Your task to perform on an android device: What's the weather going to be tomorrow? Image 0: 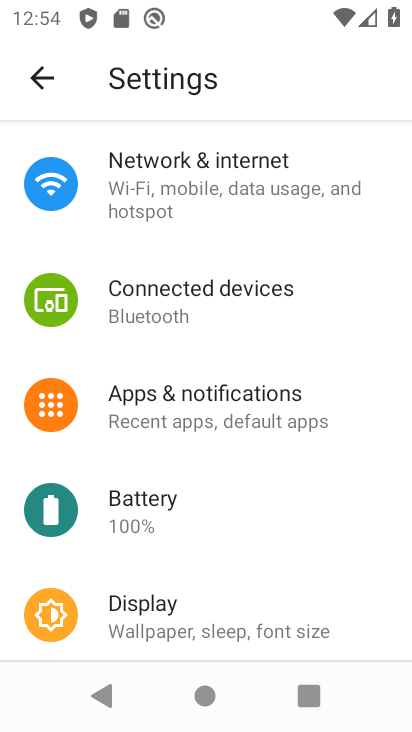
Step 0: press back button
Your task to perform on an android device: What's the weather going to be tomorrow? Image 1: 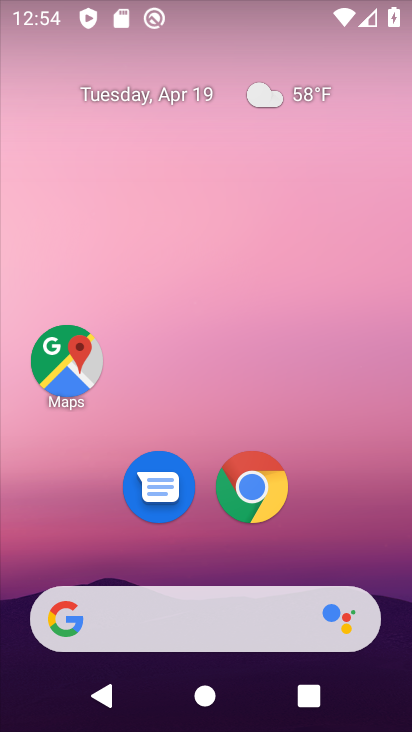
Step 1: click (273, 92)
Your task to perform on an android device: What's the weather going to be tomorrow? Image 2: 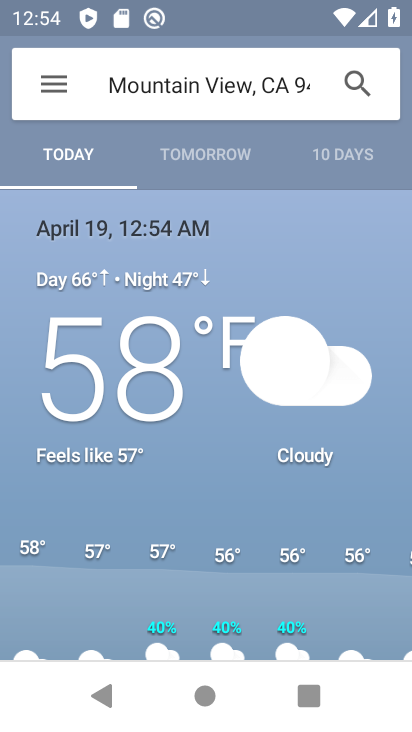
Step 2: click (214, 148)
Your task to perform on an android device: What's the weather going to be tomorrow? Image 3: 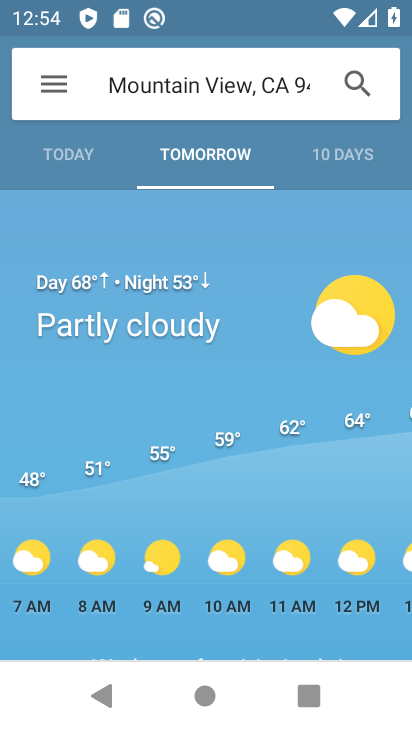
Step 3: task complete